Your task to perform on an android device: Go to Maps Image 0: 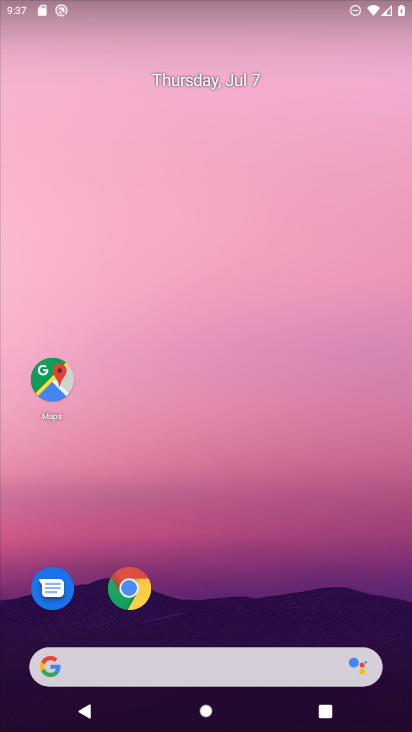
Step 0: click (57, 367)
Your task to perform on an android device: Go to Maps Image 1: 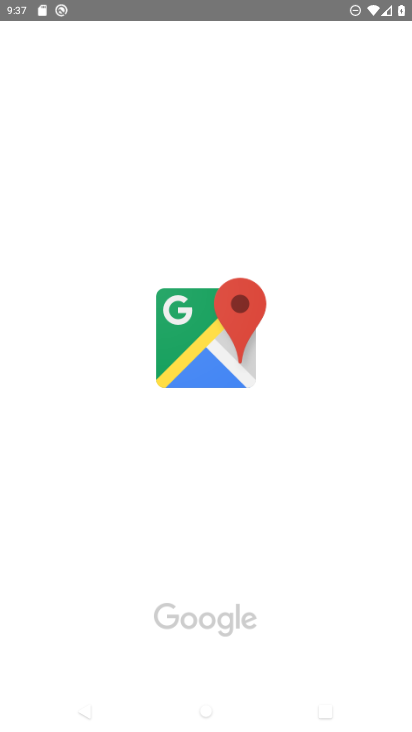
Step 1: task complete